Your task to perform on an android device: open a new tab in the chrome app Image 0: 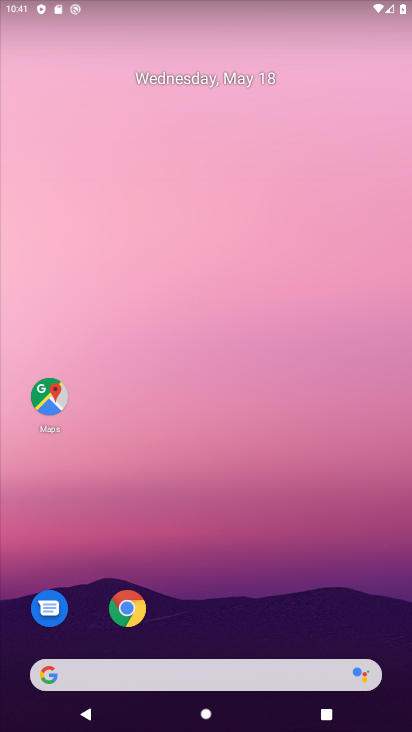
Step 0: press home button
Your task to perform on an android device: open a new tab in the chrome app Image 1: 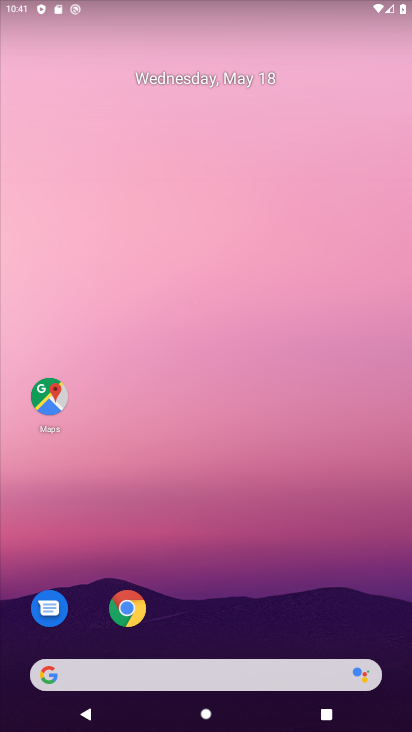
Step 1: click (124, 597)
Your task to perform on an android device: open a new tab in the chrome app Image 2: 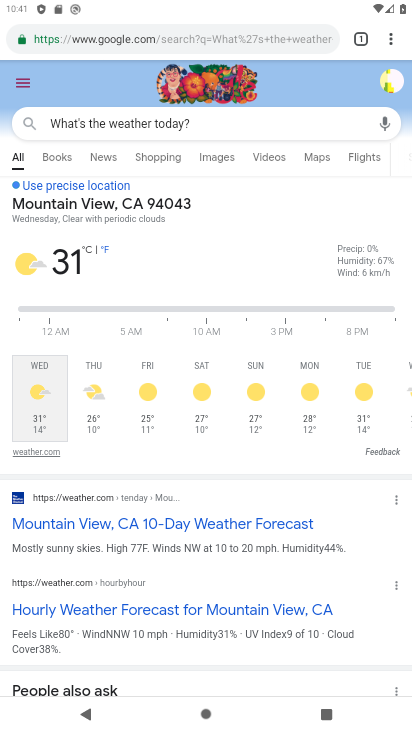
Step 2: task complete